Your task to perform on an android device: open app "Fetch Rewards" (install if not already installed), go to login, and select forgot password Image 0: 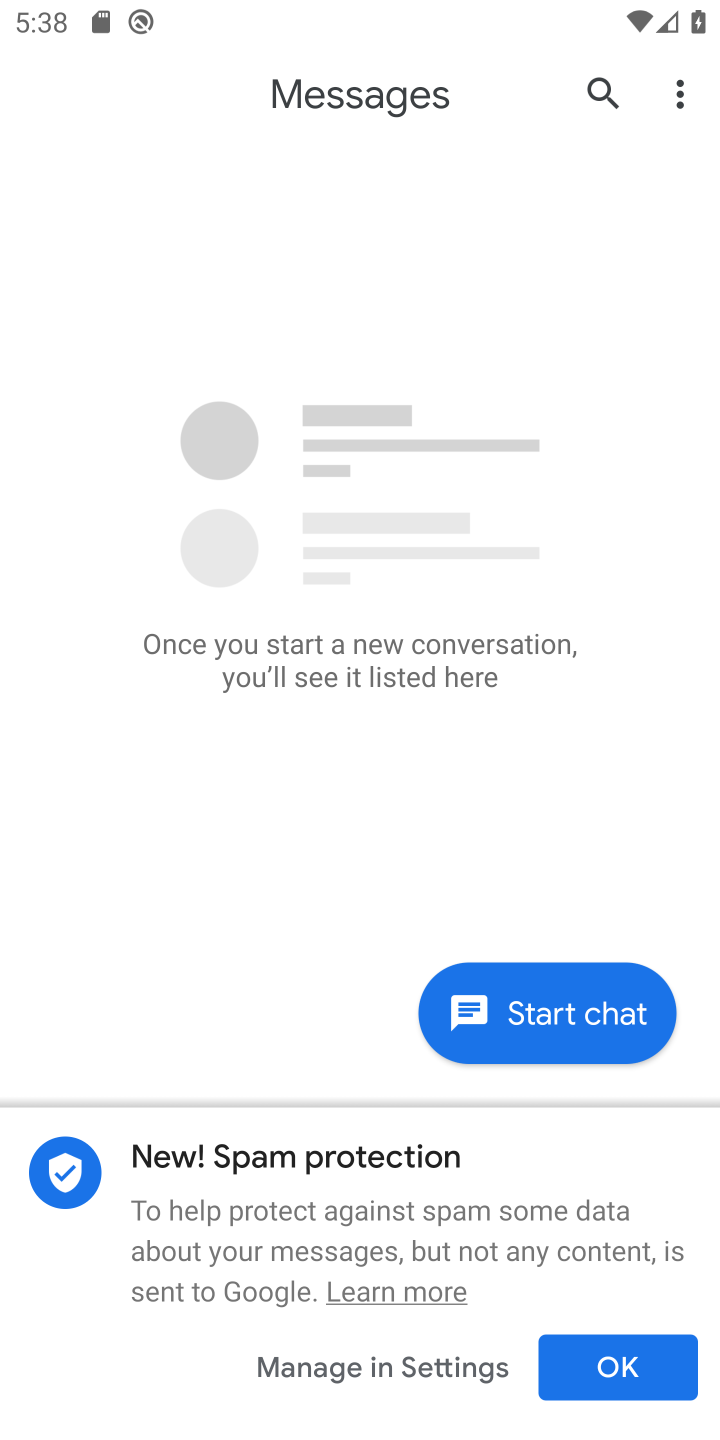
Step 0: press back button
Your task to perform on an android device: open app "Fetch Rewards" (install if not already installed), go to login, and select forgot password Image 1: 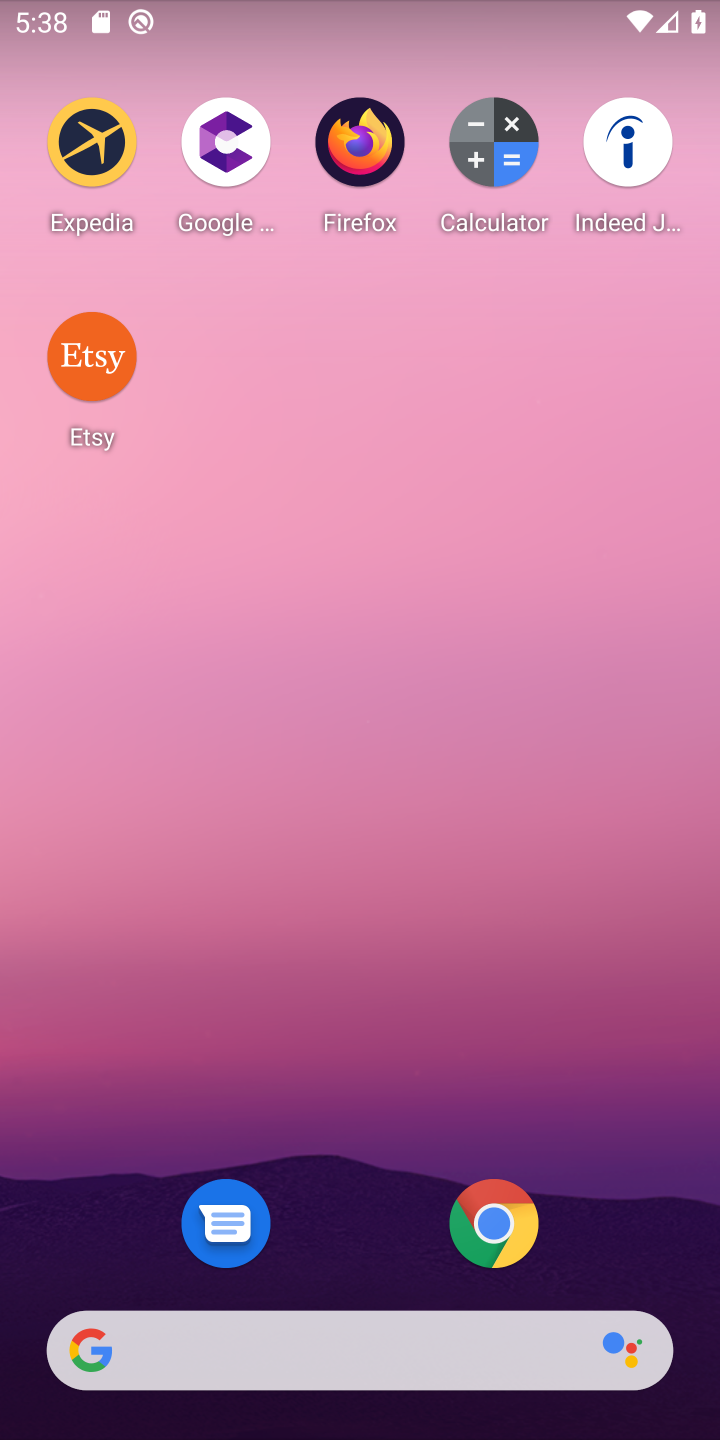
Step 1: drag from (500, 800) to (541, 111)
Your task to perform on an android device: open app "Fetch Rewards" (install if not already installed), go to login, and select forgot password Image 2: 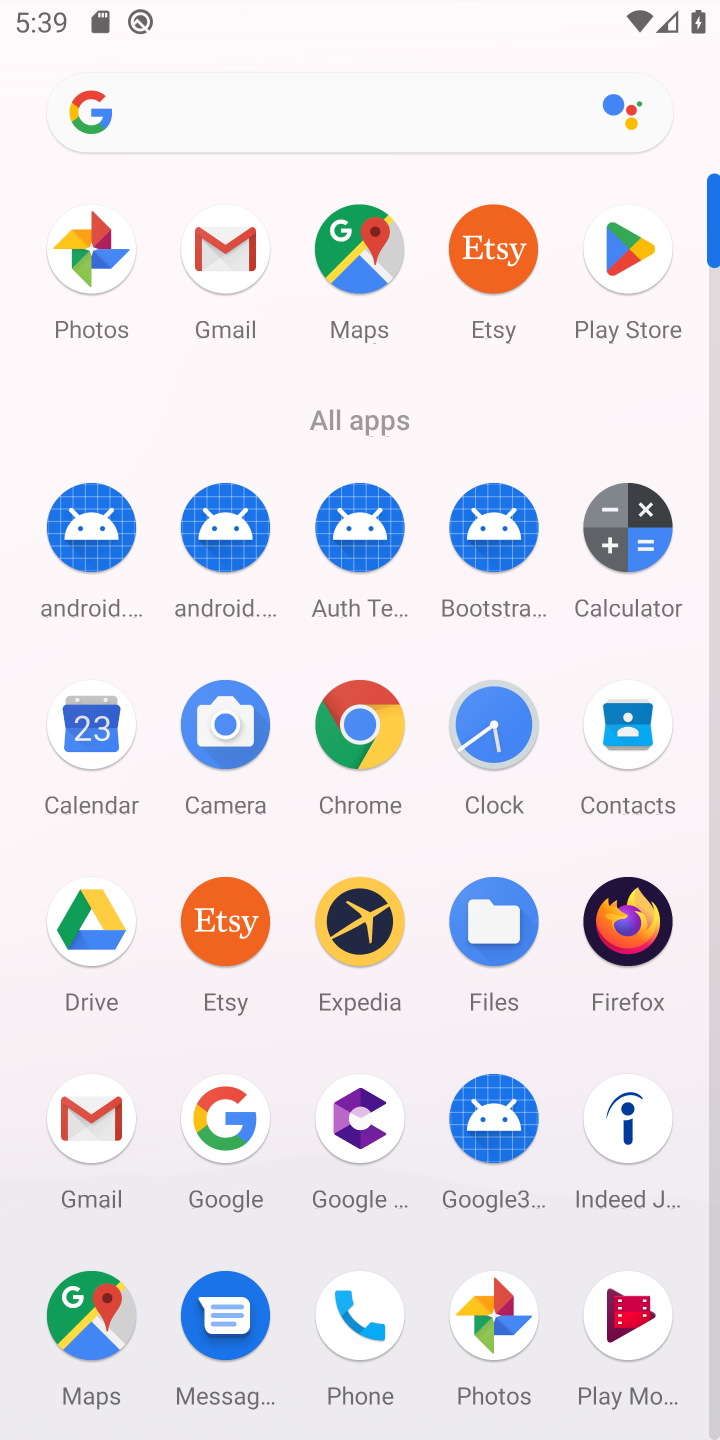
Step 2: click (614, 240)
Your task to perform on an android device: open app "Fetch Rewards" (install if not already installed), go to login, and select forgot password Image 3: 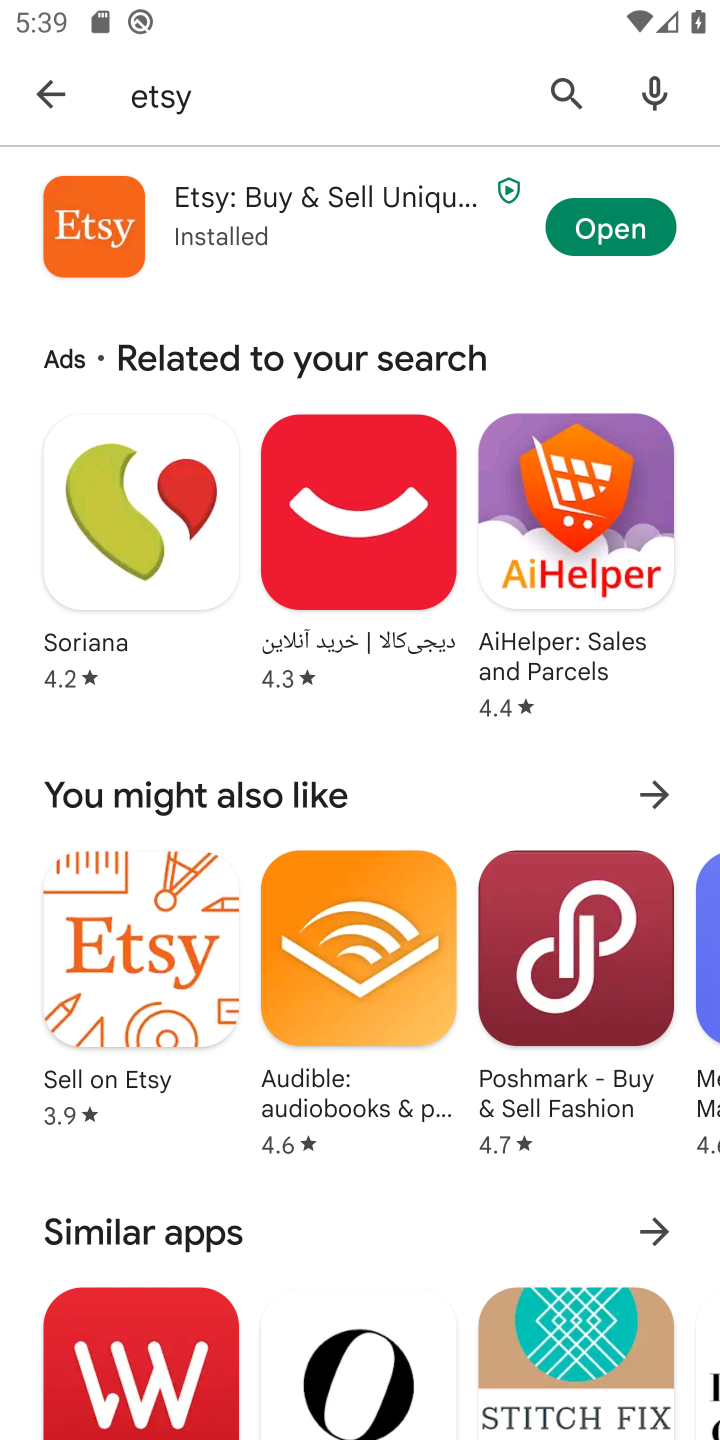
Step 3: click (579, 100)
Your task to perform on an android device: open app "Fetch Rewards" (install if not already installed), go to login, and select forgot password Image 4: 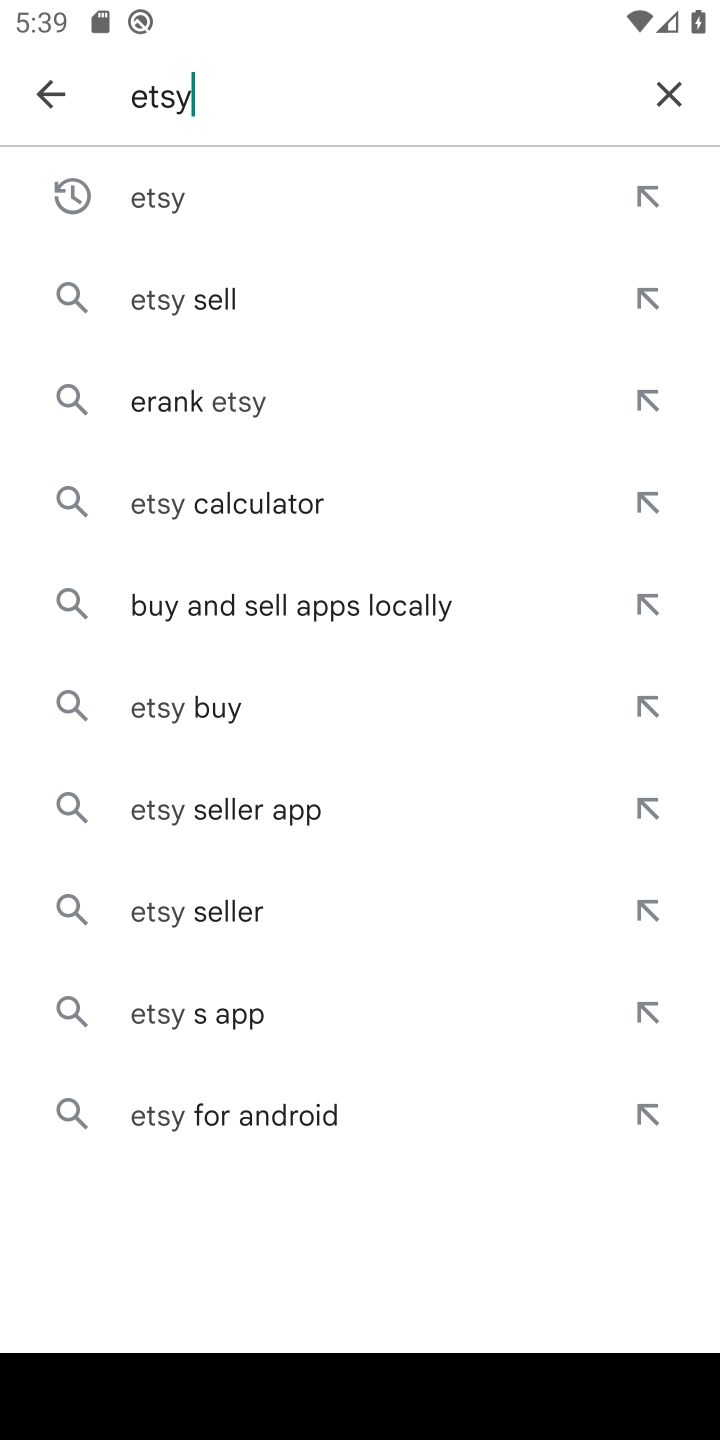
Step 4: click (664, 92)
Your task to perform on an android device: open app "Fetch Rewards" (install if not already installed), go to login, and select forgot password Image 5: 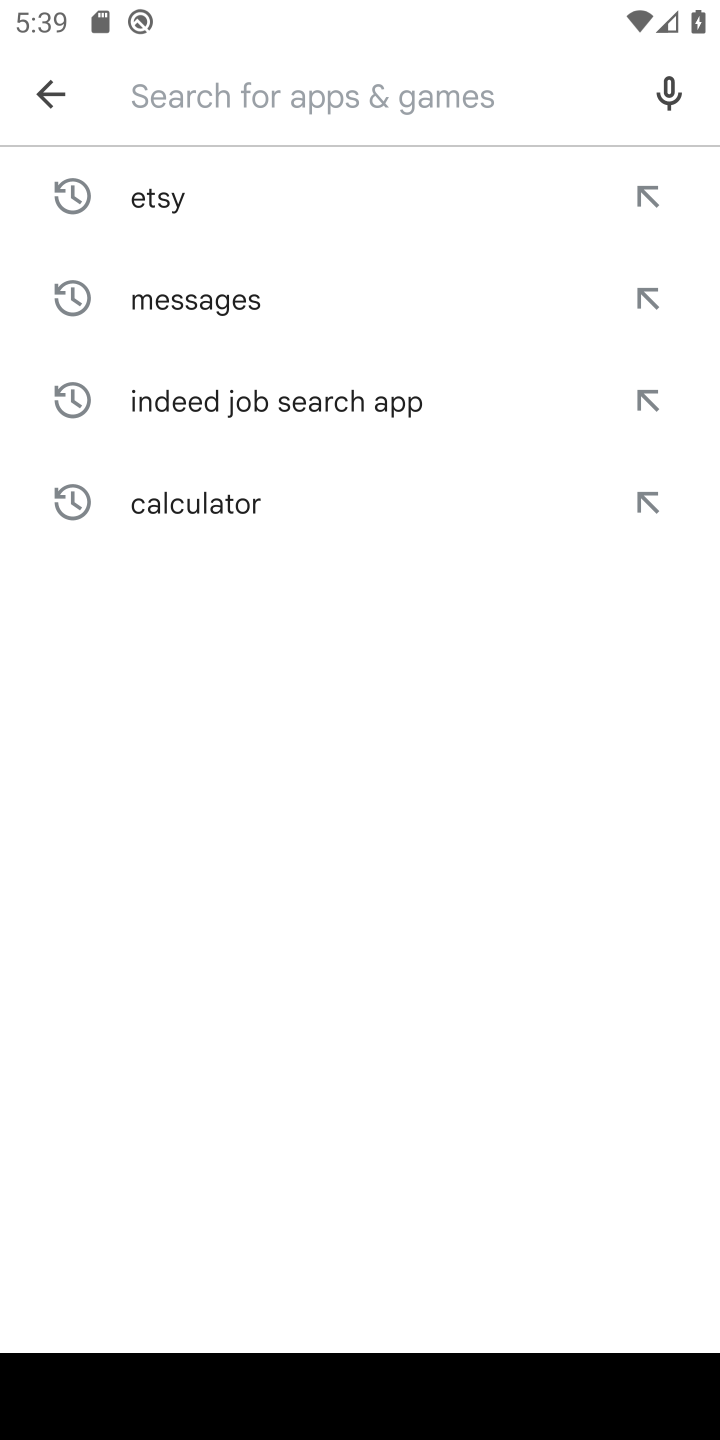
Step 5: type "fetch rewards"
Your task to perform on an android device: open app "Fetch Rewards" (install if not already installed), go to login, and select forgot password Image 6: 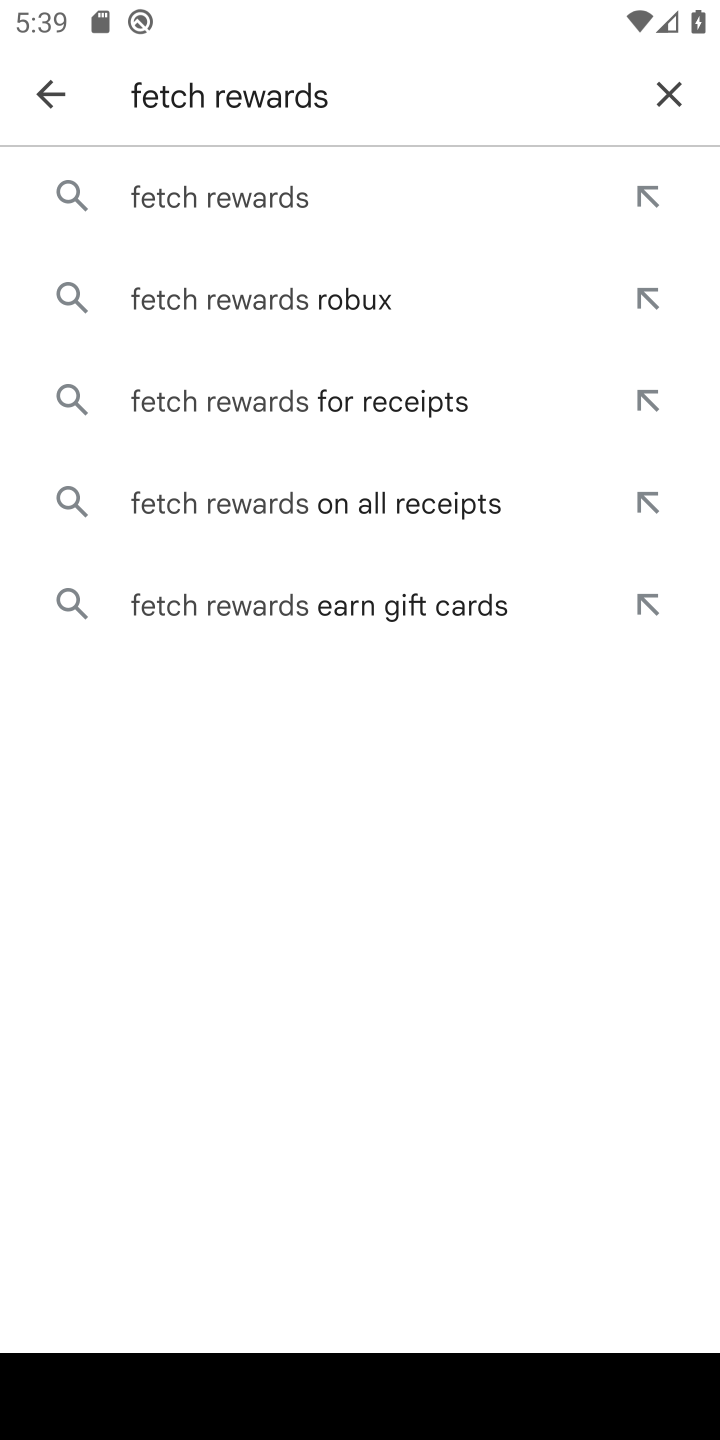
Step 6: click (266, 203)
Your task to perform on an android device: open app "Fetch Rewards" (install if not already installed), go to login, and select forgot password Image 7: 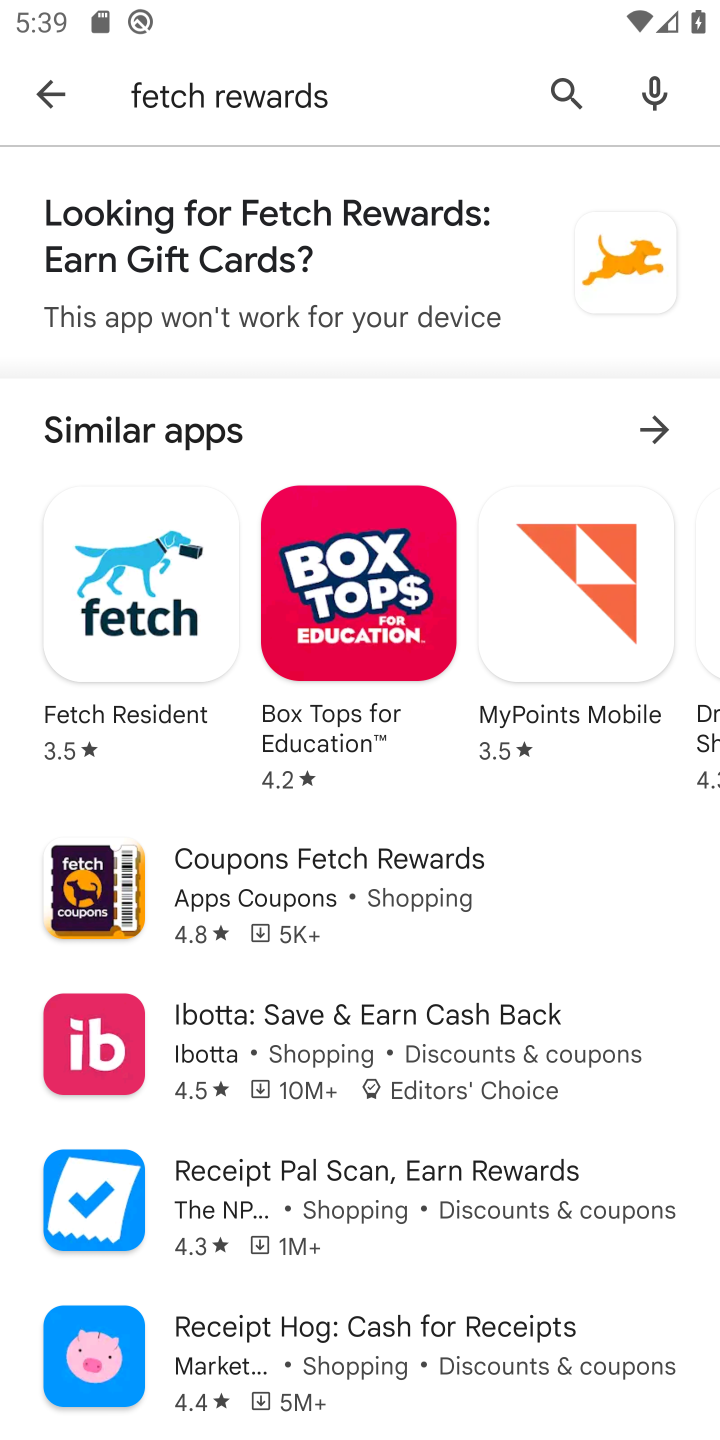
Step 7: task complete